Your task to perform on an android device: set the timer Image 0: 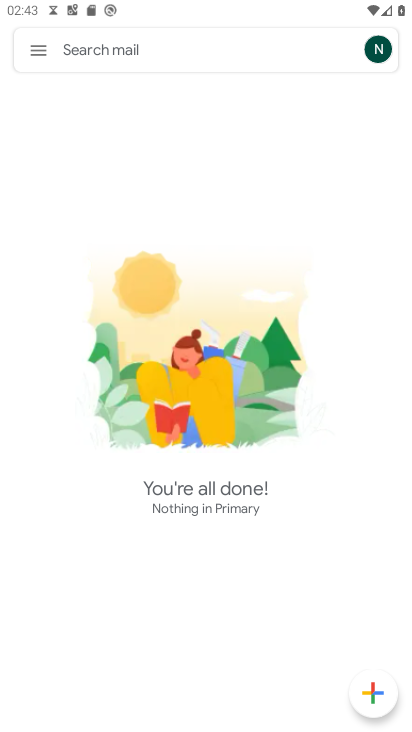
Step 0: press home button
Your task to perform on an android device: set the timer Image 1: 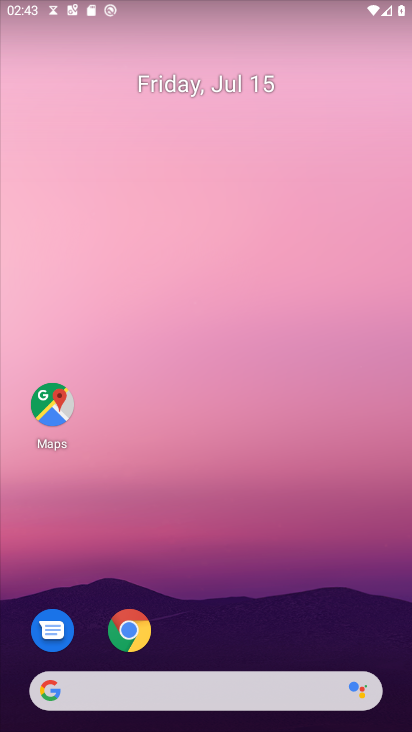
Step 1: drag from (255, 607) to (290, 112)
Your task to perform on an android device: set the timer Image 2: 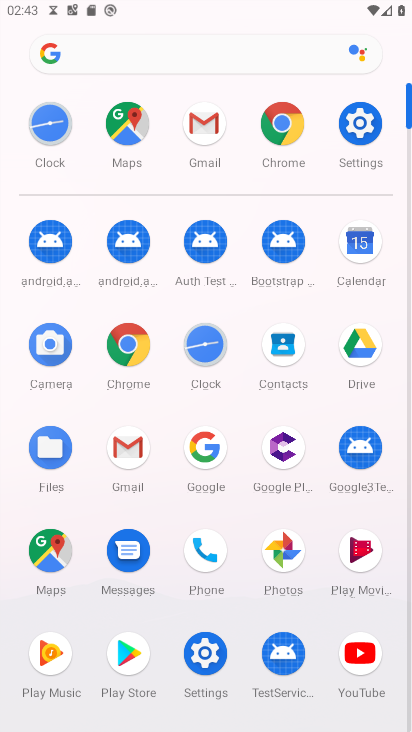
Step 2: click (188, 345)
Your task to perform on an android device: set the timer Image 3: 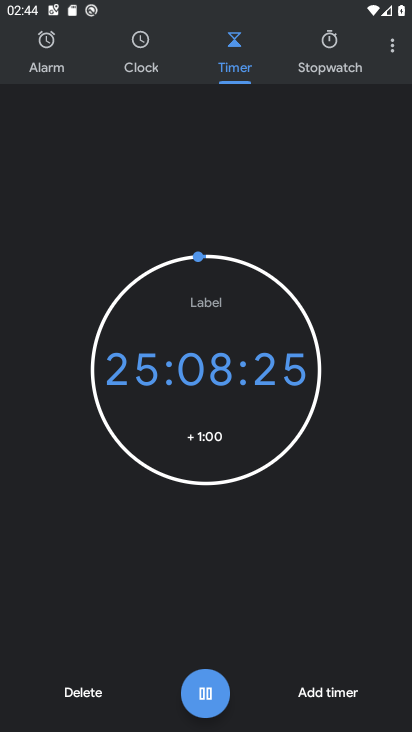
Step 3: task complete